Your task to perform on an android device: turn off data saver in the chrome app Image 0: 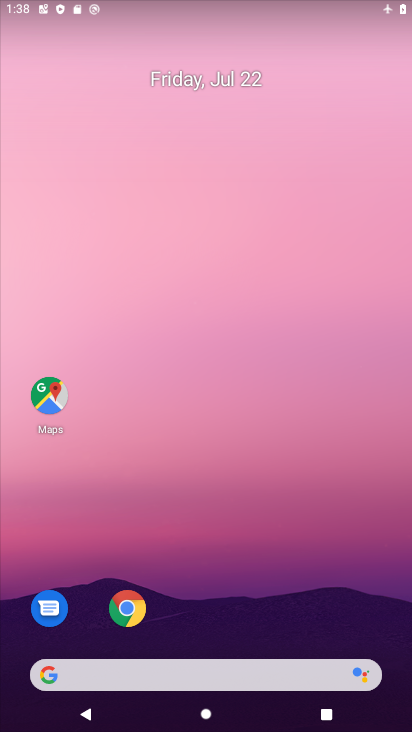
Step 0: click (120, 608)
Your task to perform on an android device: turn off data saver in the chrome app Image 1: 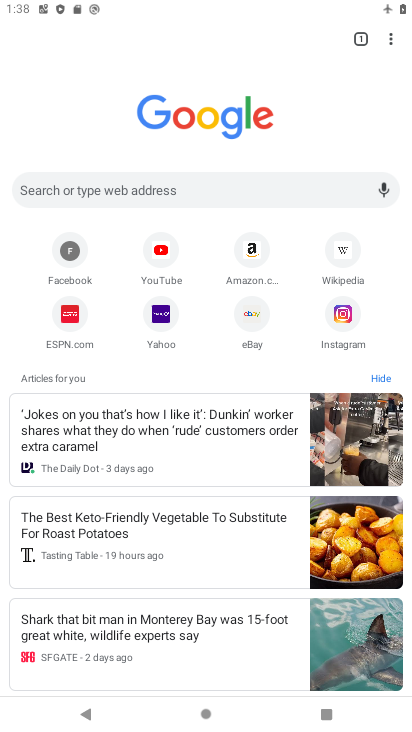
Step 1: click (390, 39)
Your task to perform on an android device: turn off data saver in the chrome app Image 2: 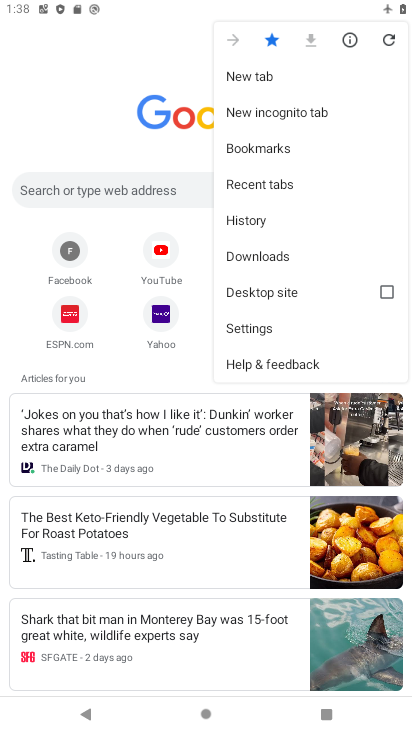
Step 2: click (251, 326)
Your task to perform on an android device: turn off data saver in the chrome app Image 3: 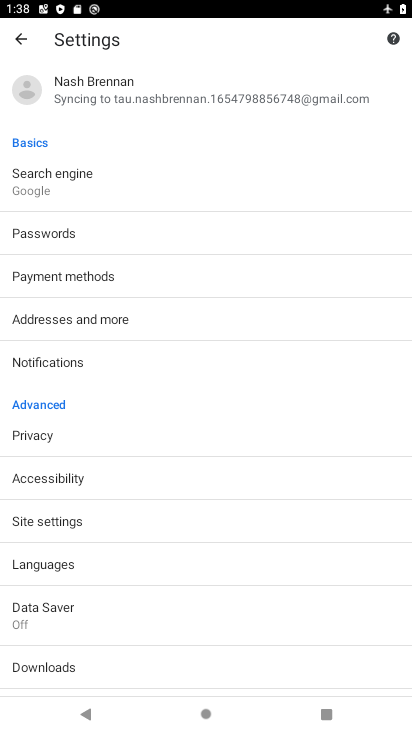
Step 3: click (55, 607)
Your task to perform on an android device: turn off data saver in the chrome app Image 4: 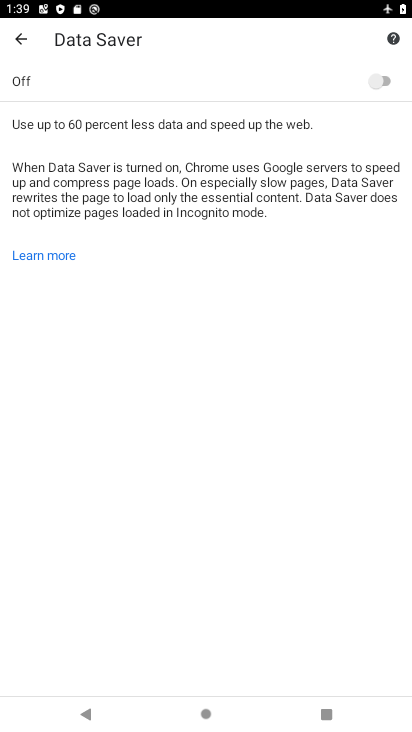
Step 4: task complete